Your task to perform on an android device: Open the calendar app, open the side menu, and click the "Day" option Image 0: 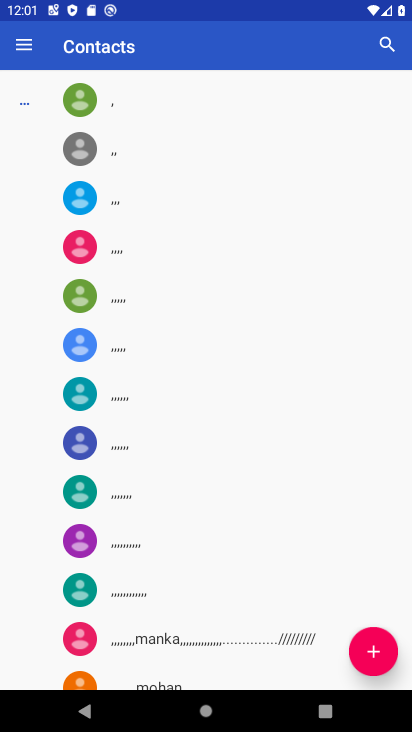
Step 0: press home button
Your task to perform on an android device: Open the calendar app, open the side menu, and click the "Day" option Image 1: 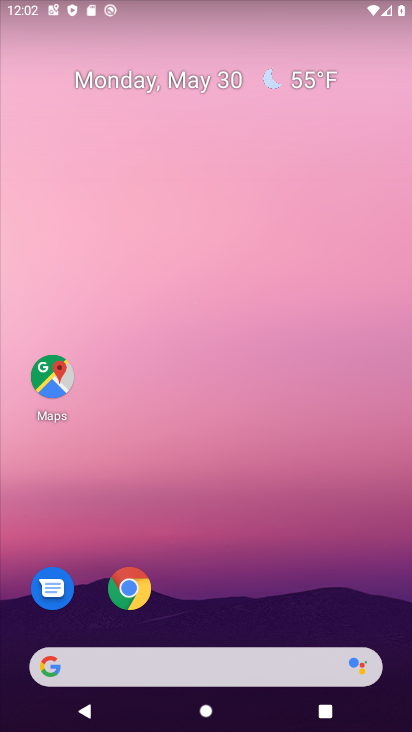
Step 1: drag from (303, 540) to (91, 8)
Your task to perform on an android device: Open the calendar app, open the side menu, and click the "Day" option Image 2: 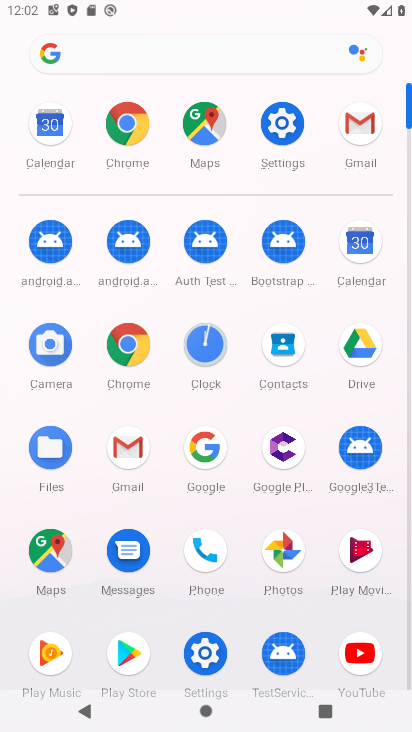
Step 2: click (41, 113)
Your task to perform on an android device: Open the calendar app, open the side menu, and click the "Day" option Image 3: 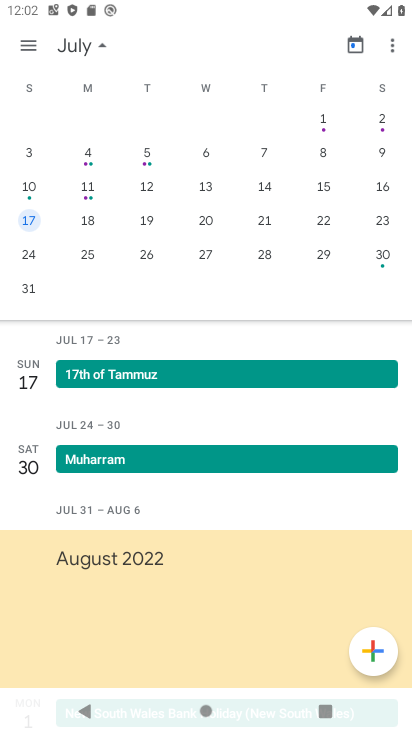
Step 3: click (27, 42)
Your task to perform on an android device: Open the calendar app, open the side menu, and click the "Day" option Image 4: 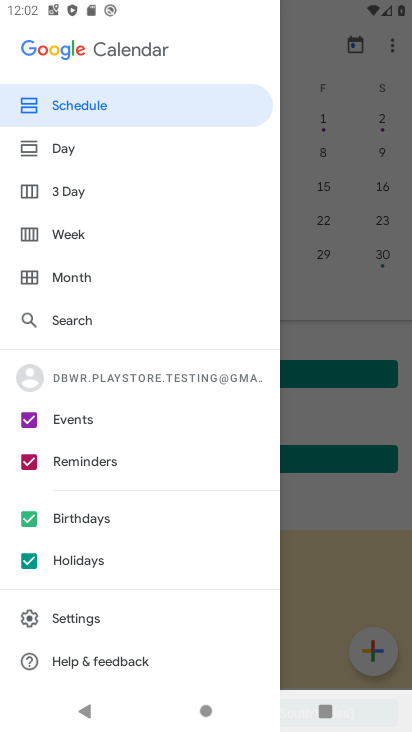
Step 4: click (67, 148)
Your task to perform on an android device: Open the calendar app, open the side menu, and click the "Day" option Image 5: 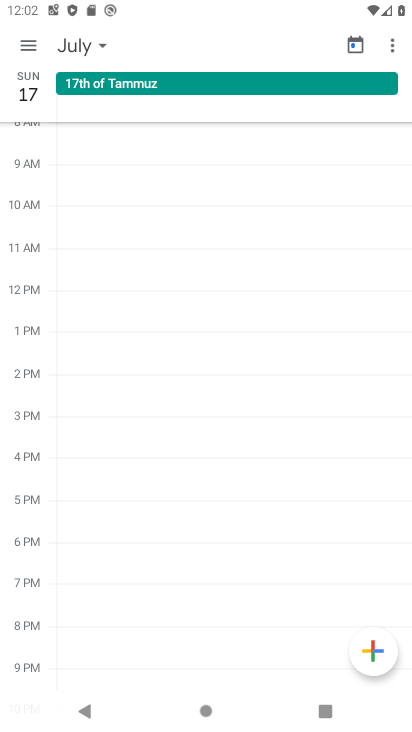
Step 5: task complete